Your task to perform on an android device: turn notification dots off Image 0: 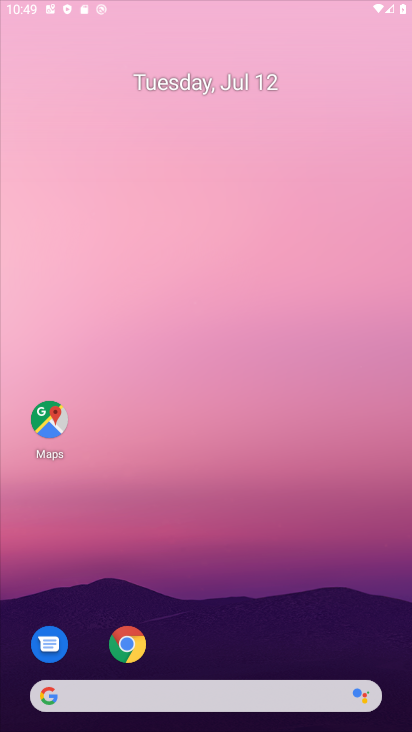
Step 0: press home button
Your task to perform on an android device: turn notification dots off Image 1: 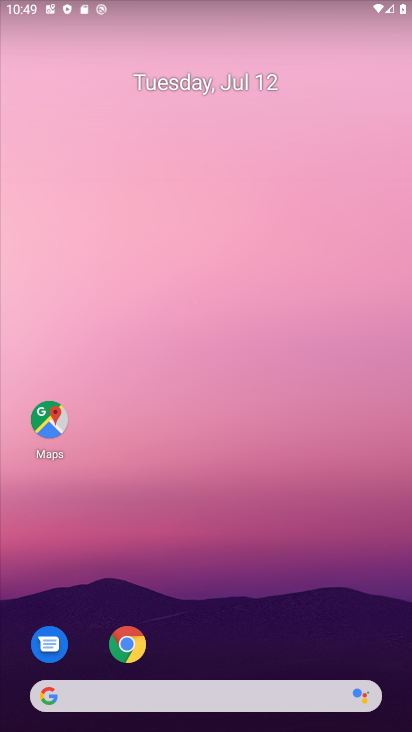
Step 1: press home button
Your task to perform on an android device: turn notification dots off Image 2: 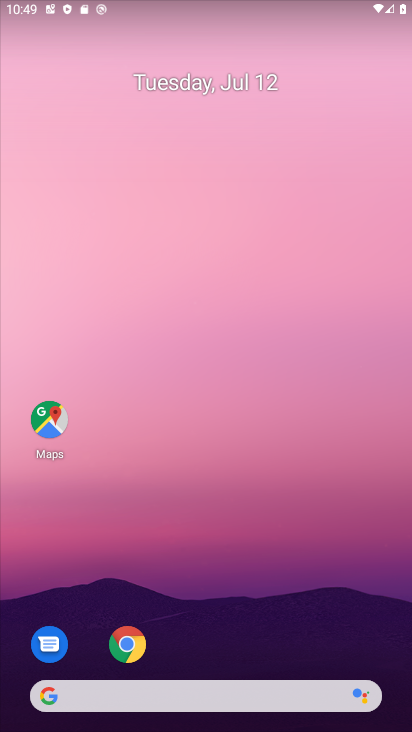
Step 2: drag from (221, 661) to (314, 4)
Your task to perform on an android device: turn notification dots off Image 3: 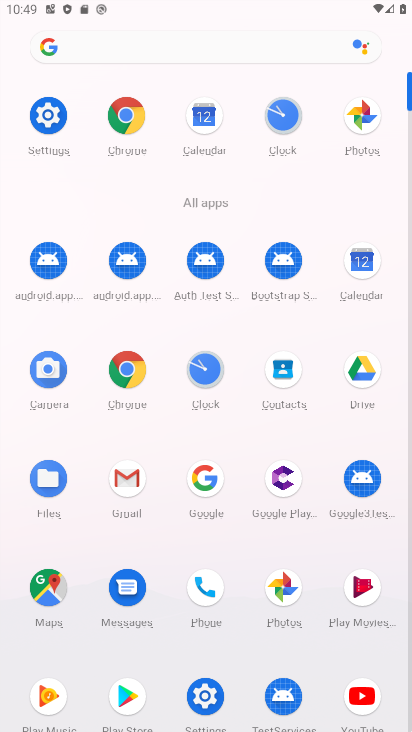
Step 3: click (46, 113)
Your task to perform on an android device: turn notification dots off Image 4: 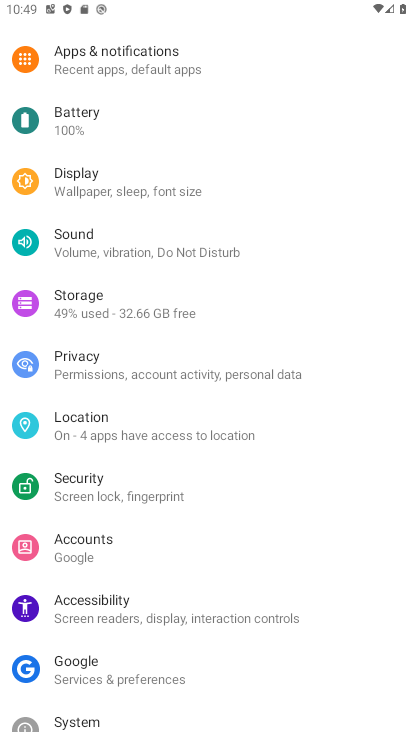
Step 4: click (130, 57)
Your task to perform on an android device: turn notification dots off Image 5: 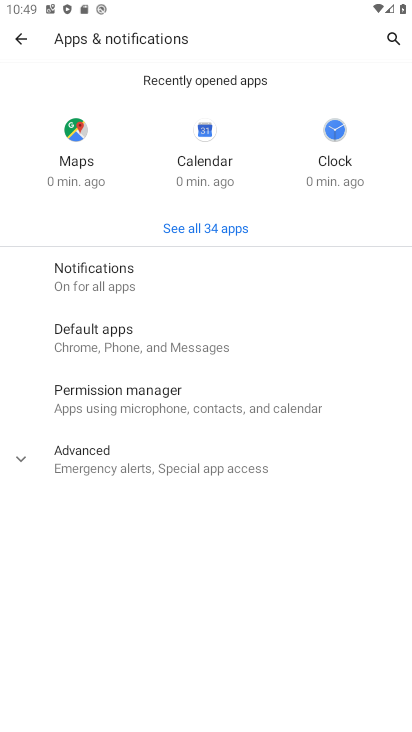
Step 5: click (134, 268)
Your task to perform on an android device: turn notification dots off Image 6: 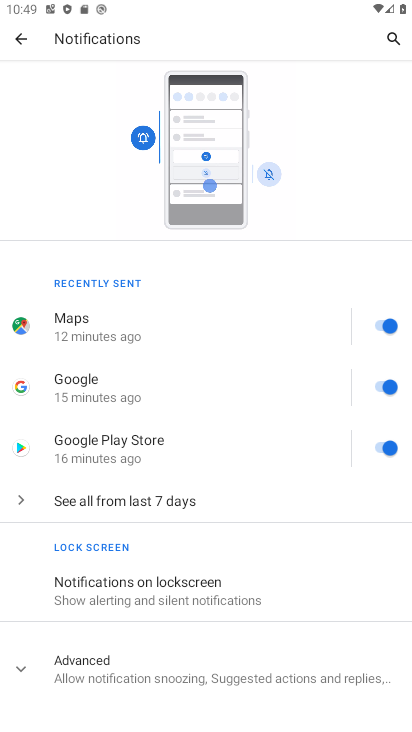
Step 6: click (125, 677)
Your task to perform on an android device: turn notification dots off Image 7: 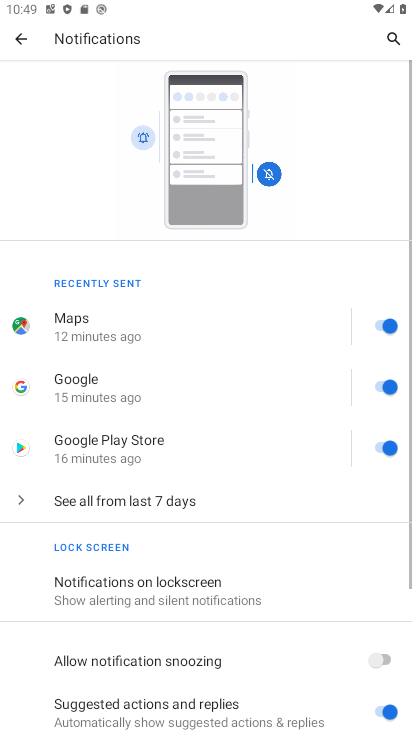
Step 7: task complete